Your task to perform on an android device: turn on location history Image 0: 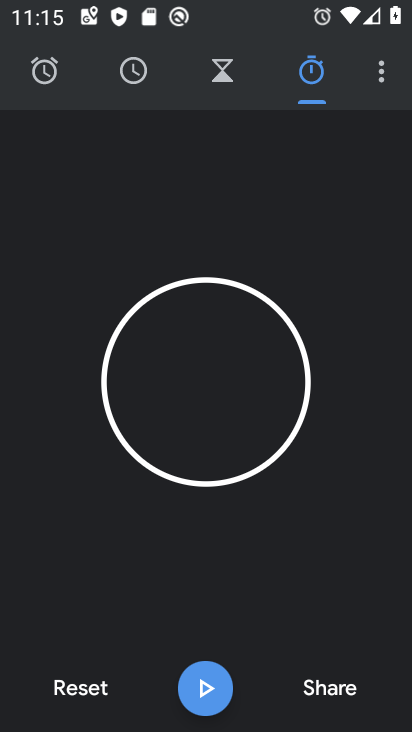
Step 0: press home button
Your task to perform on an android device: turn on location history Image 1: 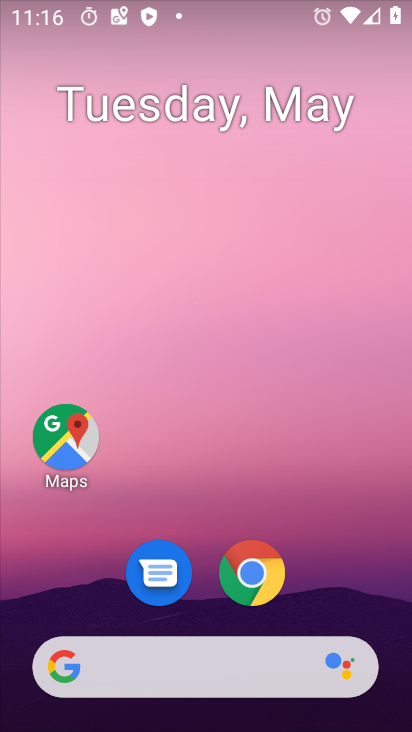
Step 1: drag from (297, 714) to (271, 116)
Your task to perform on an android device: turn on location history Image 2: 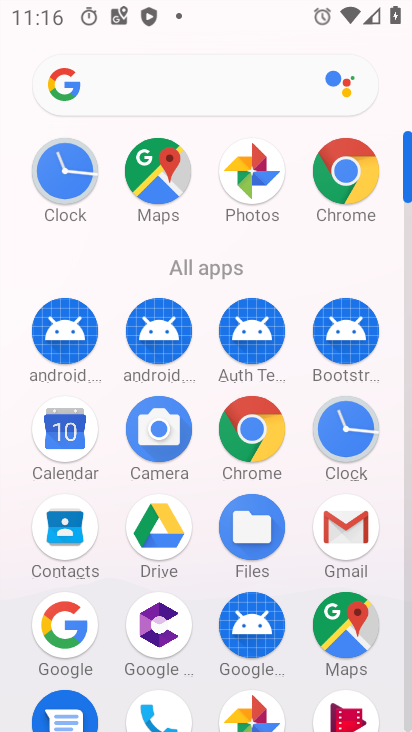
Step 2: drag from (197, 476) to (215, 309)
Your task to perform on an android device: turn on location history Image 3: 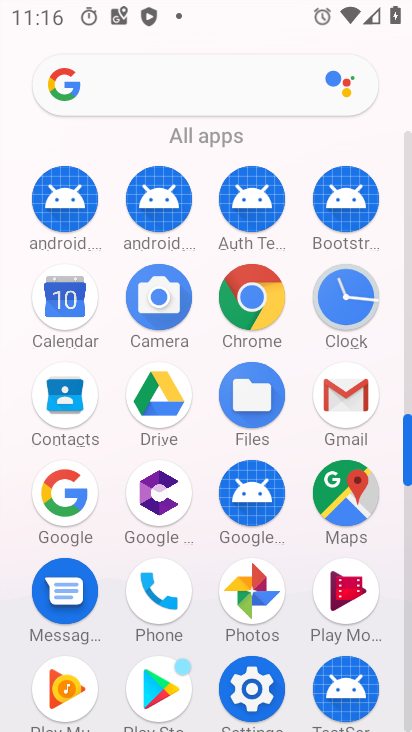
Step 3: click (268, 687)
Your task to perform on an android device: turn on location history Image 4: 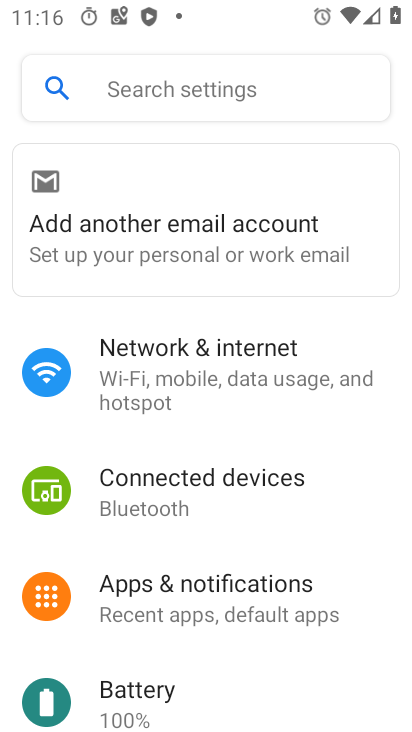
Step 4: click (197, 77)
Your task to perform on an android device: turn on location history Image 5: 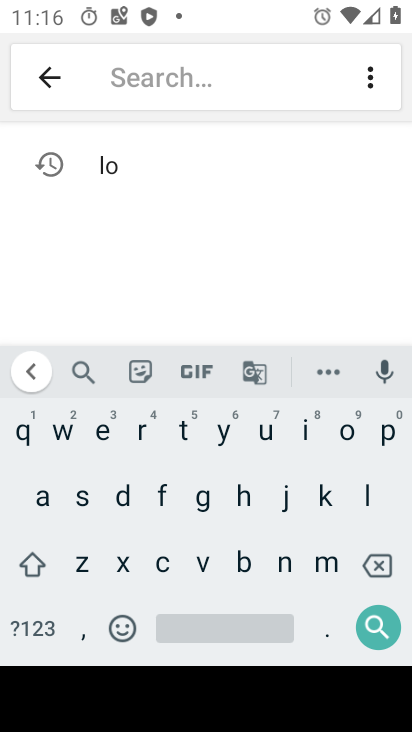
Step 5: click (141, 168)
Your task to perform on an android device: turn on location history Image 6: 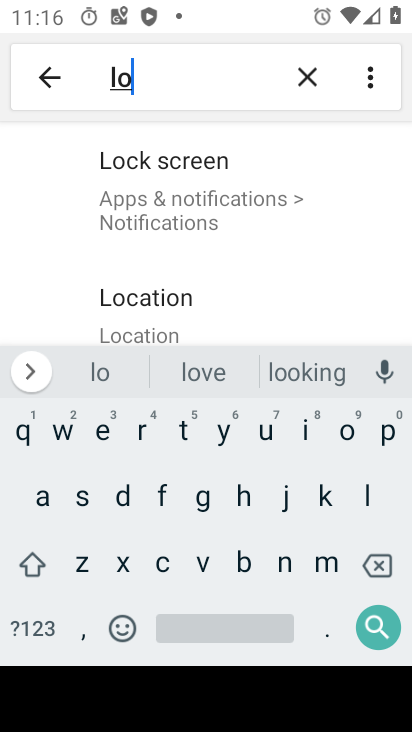
Step 6: click (142, 305)
Your task to perform on an android device: turn on location history Image 7: 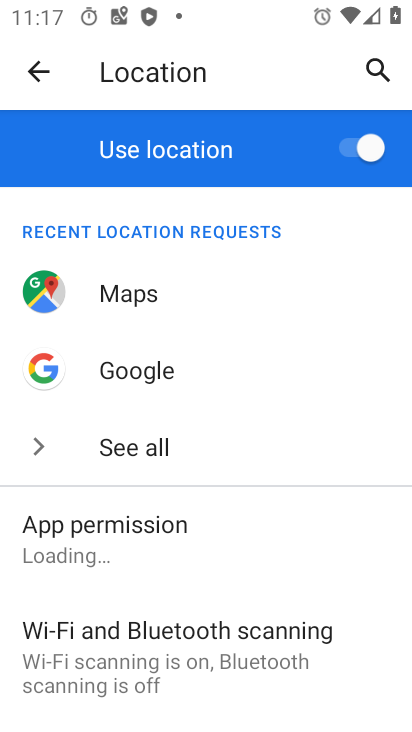
Step 7: drag from (134, 587) to (245, 220)
Your task to perform on an android device: turn on location history Image 8: 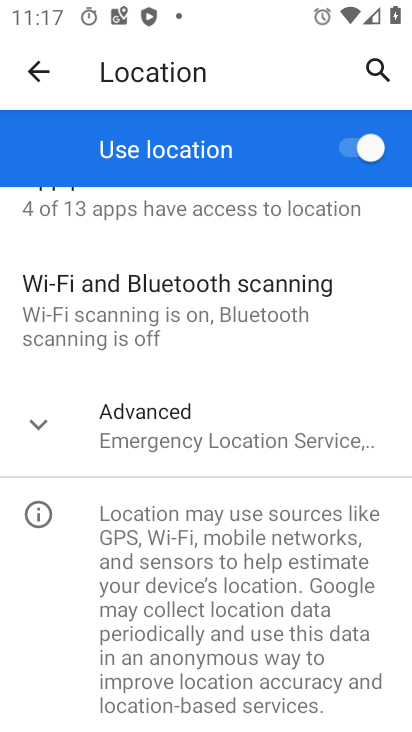
Step 8: click (72, 429)
Your task to perform on an android device: turn on location history Image 9: 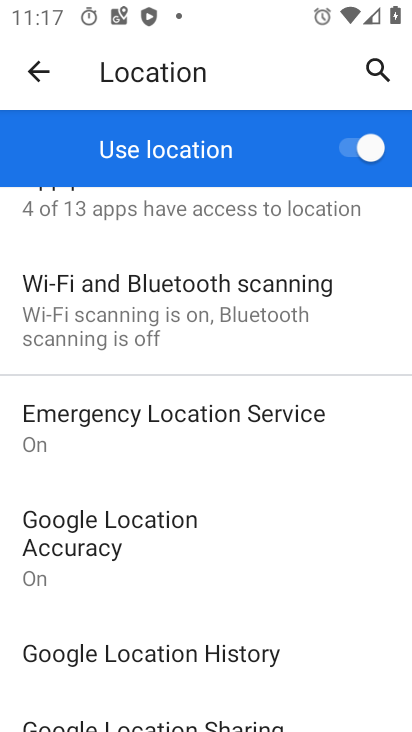
Step 9: click (158, 650)
Your task to perform on an android device: turn on location history Image 10: 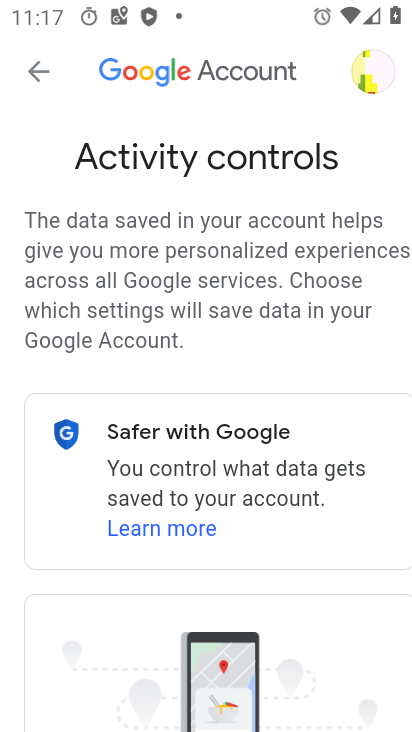
Step 10: drag from (174, 648) to (273, 226)
Your task to perform on an android device: turn on location history Image 11: 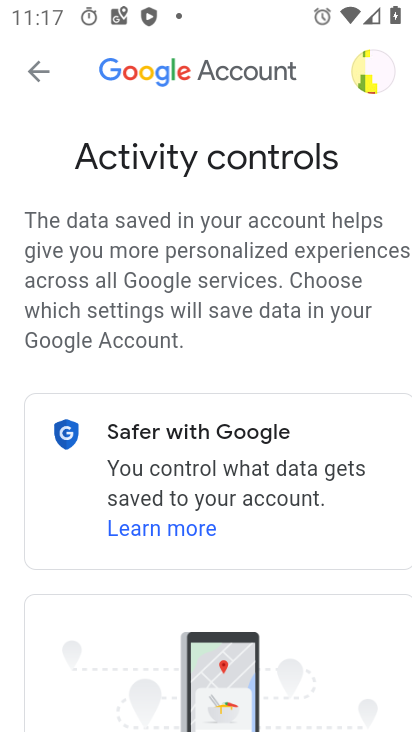
Step 11: drag from (296, 597) to (354, 167)
Your task to perform on an android device: turn on location history Image 12: 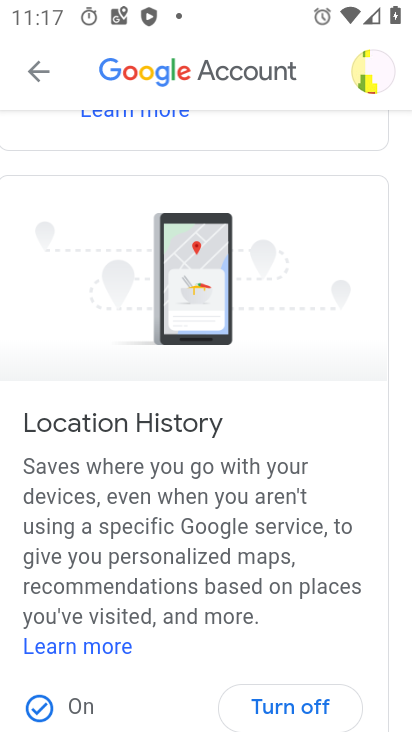
Step 12: drag from (199, 585) to (261, 363)
Your task to perform on an android device: turn on location history Image 13: 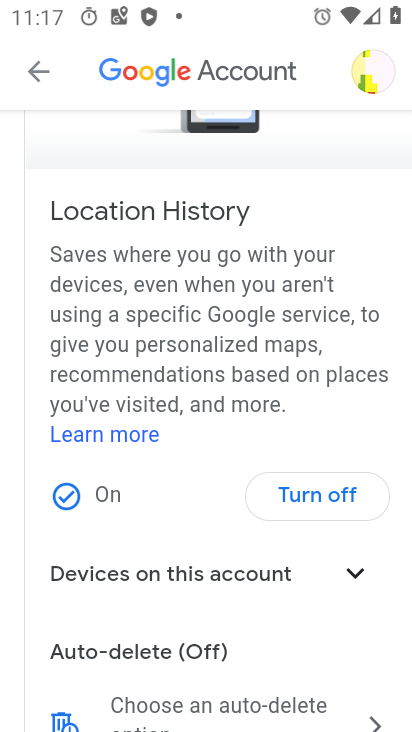
Step 13: click (104, 496)
Your task to perform on an android device: turn on location history Image 14: 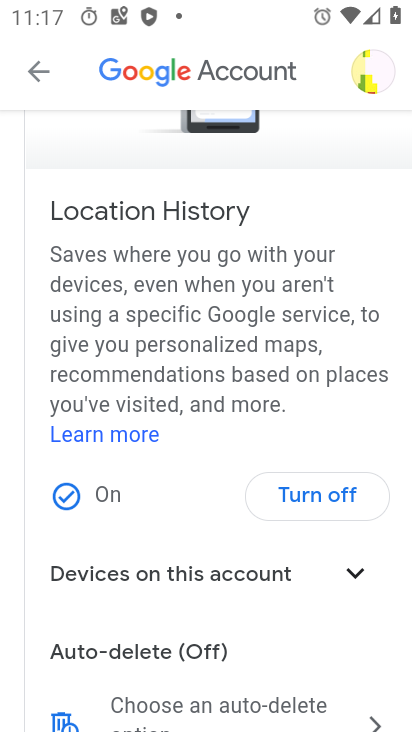
Step 14: task complete